Your task to perform on an android device: Clear the cart on walmart.com. Image 0: 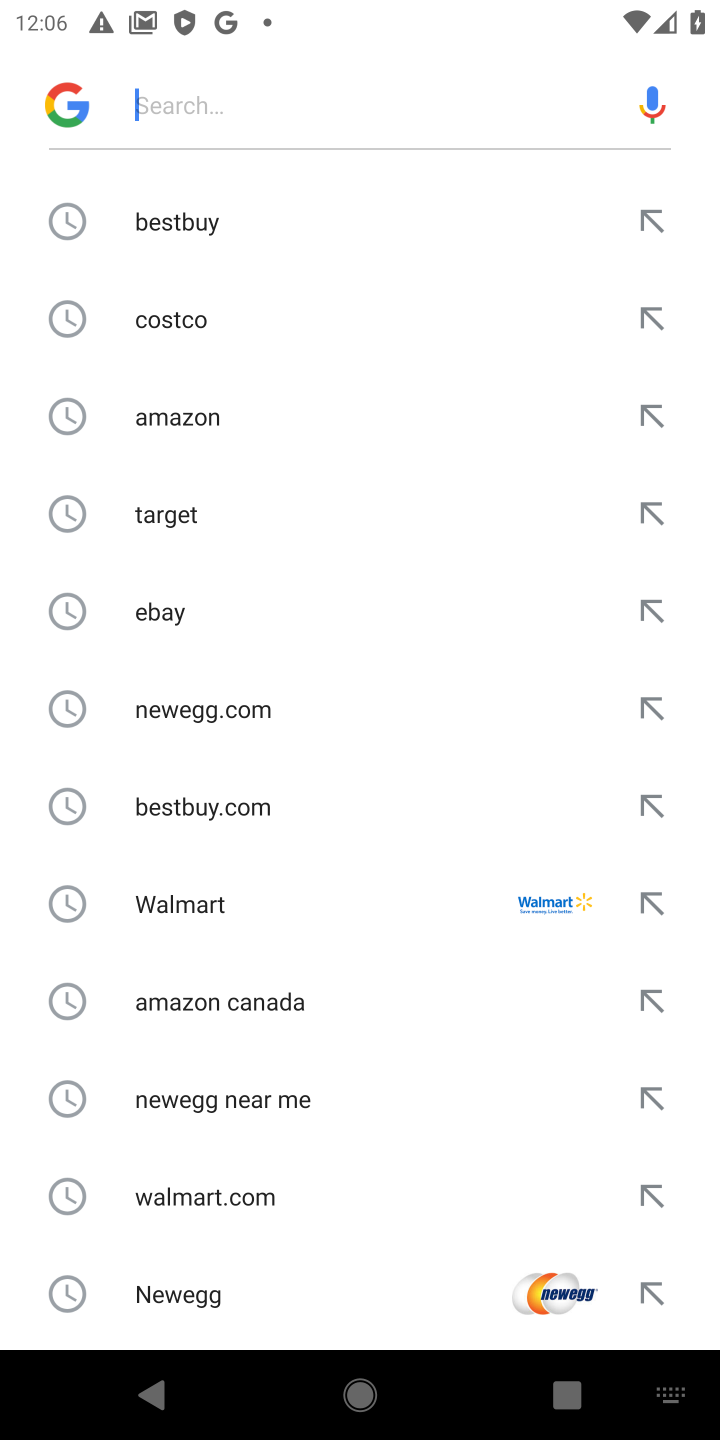
Step 0: click (148, 111)
Your task to perform on an android device: Clear the cart on walmart.com. Image 1: 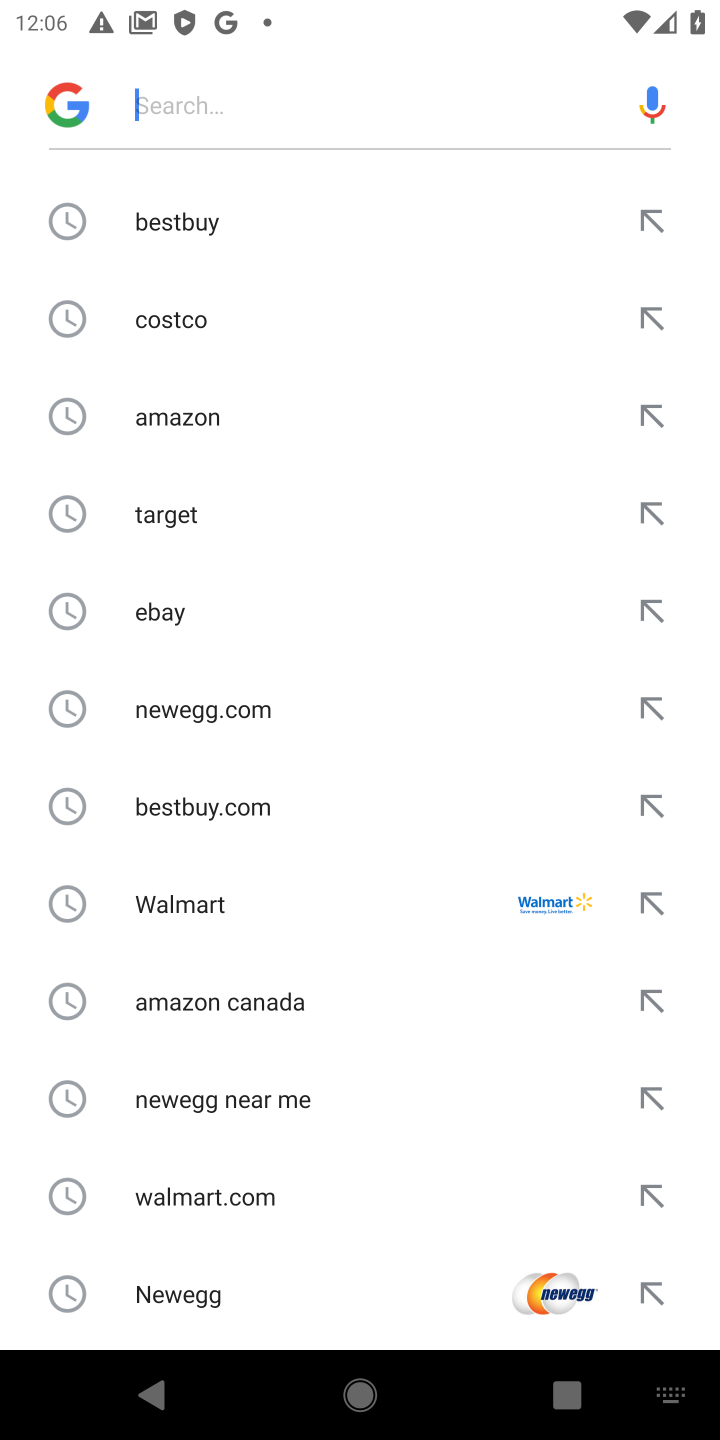
Step 1: type "walmart.com"
Your task to perform on an android device: Clear the cart on walmart.com. Image 2: 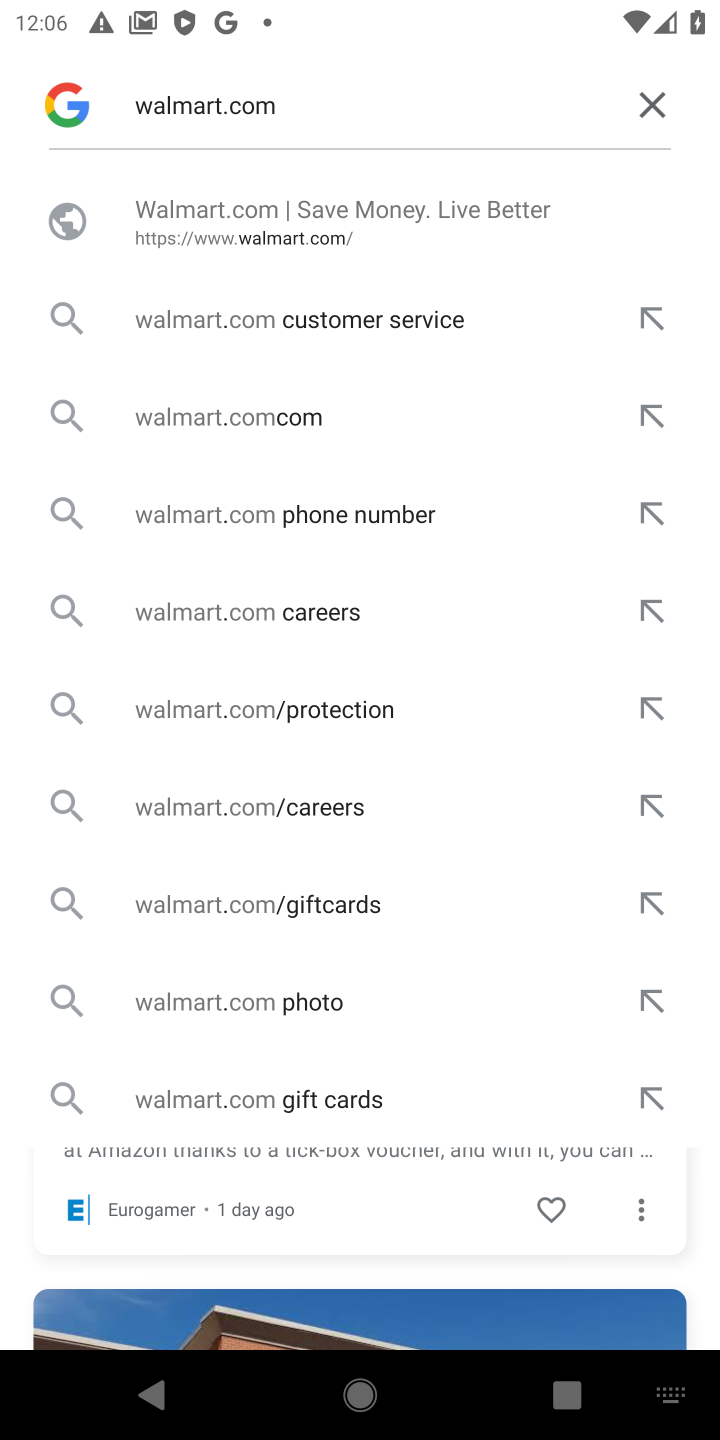
Step 2: click (207, 254)
Your task to perform on an android device: Clear the cart on walmart.com. Image 3: 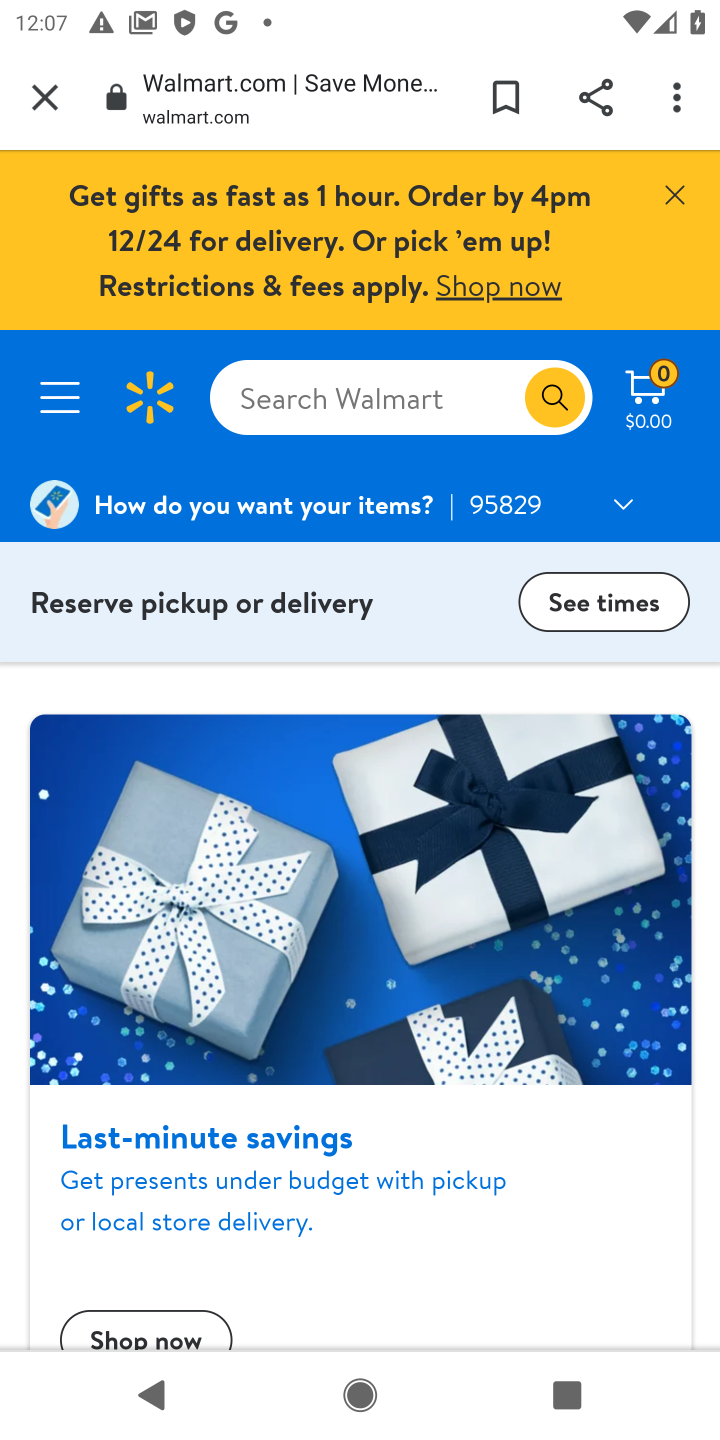
Step 3: click (643, 406)
Your task to perform on an android device: Clear the cart on walmart.com. Image 4: 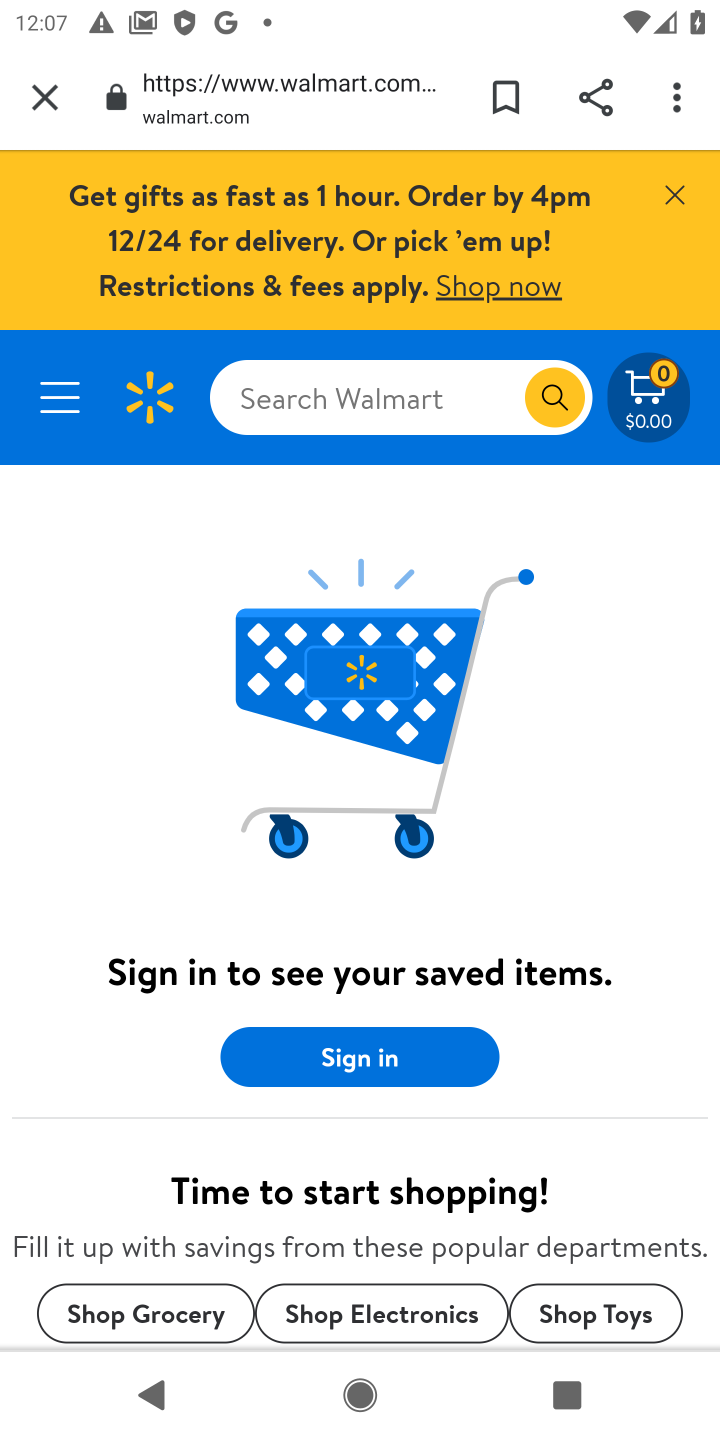
Step 4: task complete